Your task to perform on an android device: Show the shopping cart on amazon. Add razer blade to the cart on amazon Image 0: 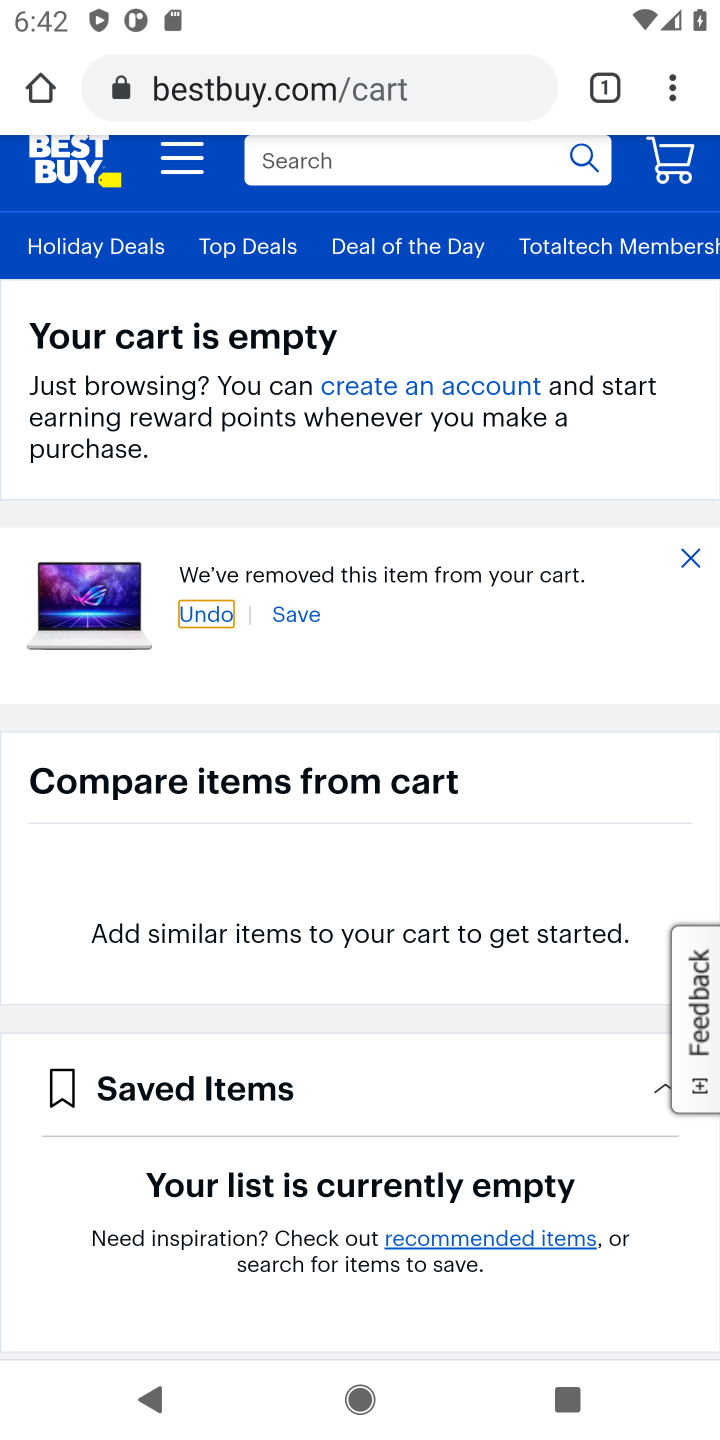
Step 0: click (363, 98)
Your task to perform on an android device: Show the shopping cart on amazon. Add razer blade to the cart on amazon Image 1: 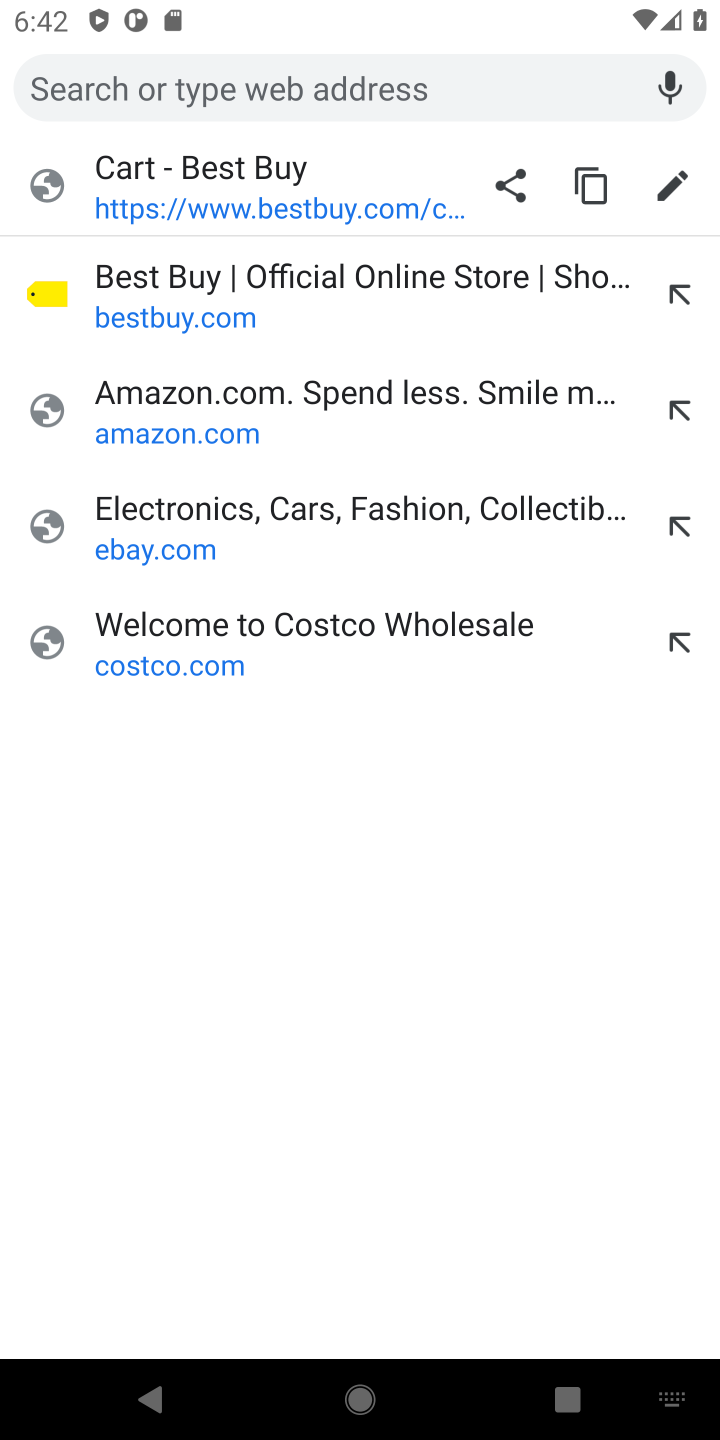
Step 1: click (163, 411)
Your task to perform on an android device: Show the shopping cart on amazon. Add razer blade to the cart on amazon Image 2: 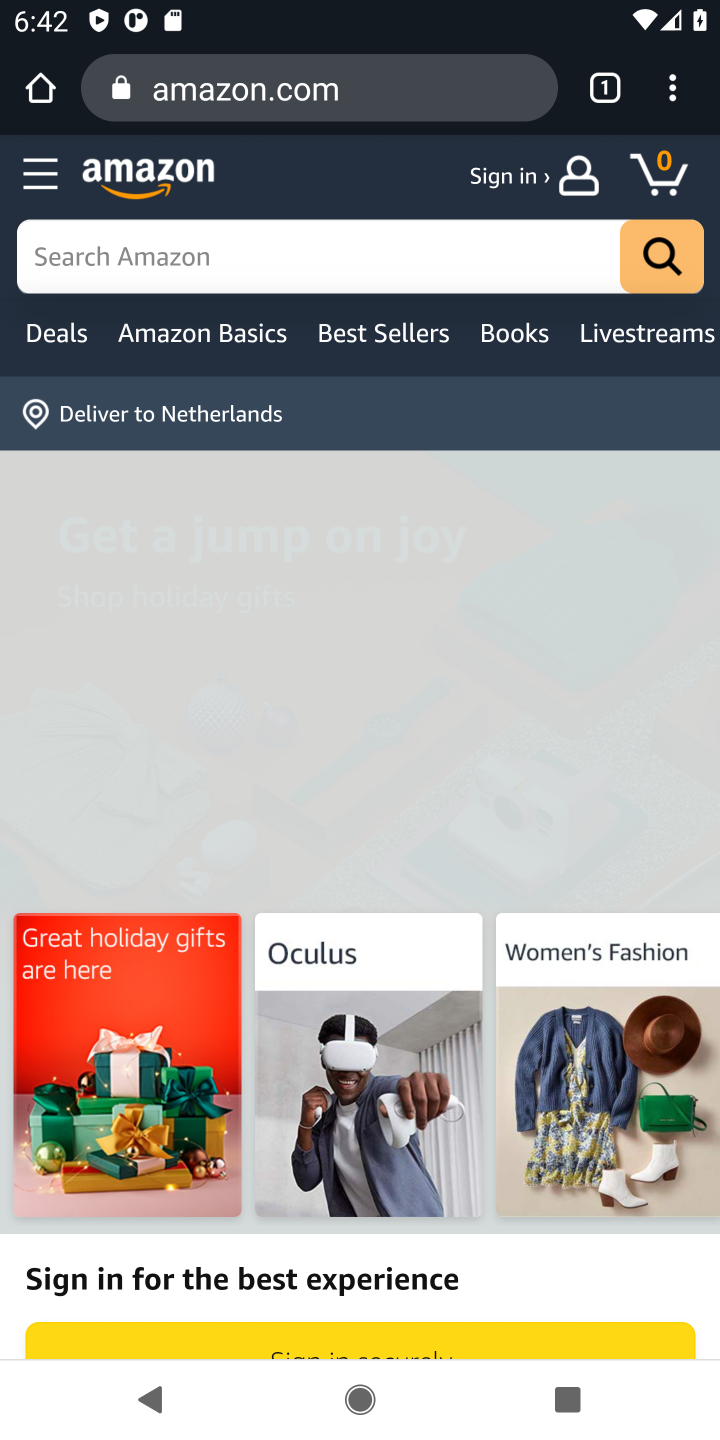
Step 2: click (662, 182)
Your task to perform on an android device: Show the shopping cart on amazon. Add razer blade to the cart on amazon Image 3: 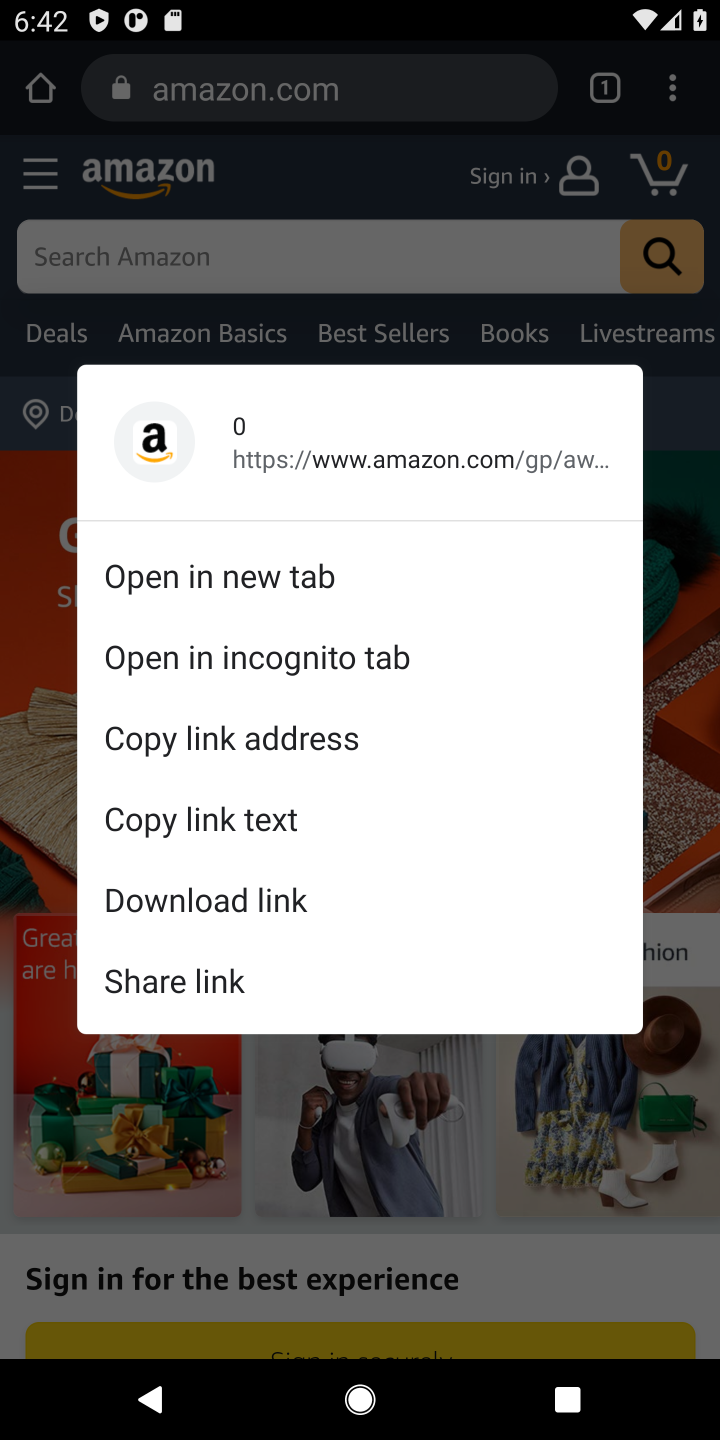
Step 3: click (660, 167)
Your task to perform on an android device: Show the shopping cart on amazon. Add razer blade to the cart on amazon Image 4: 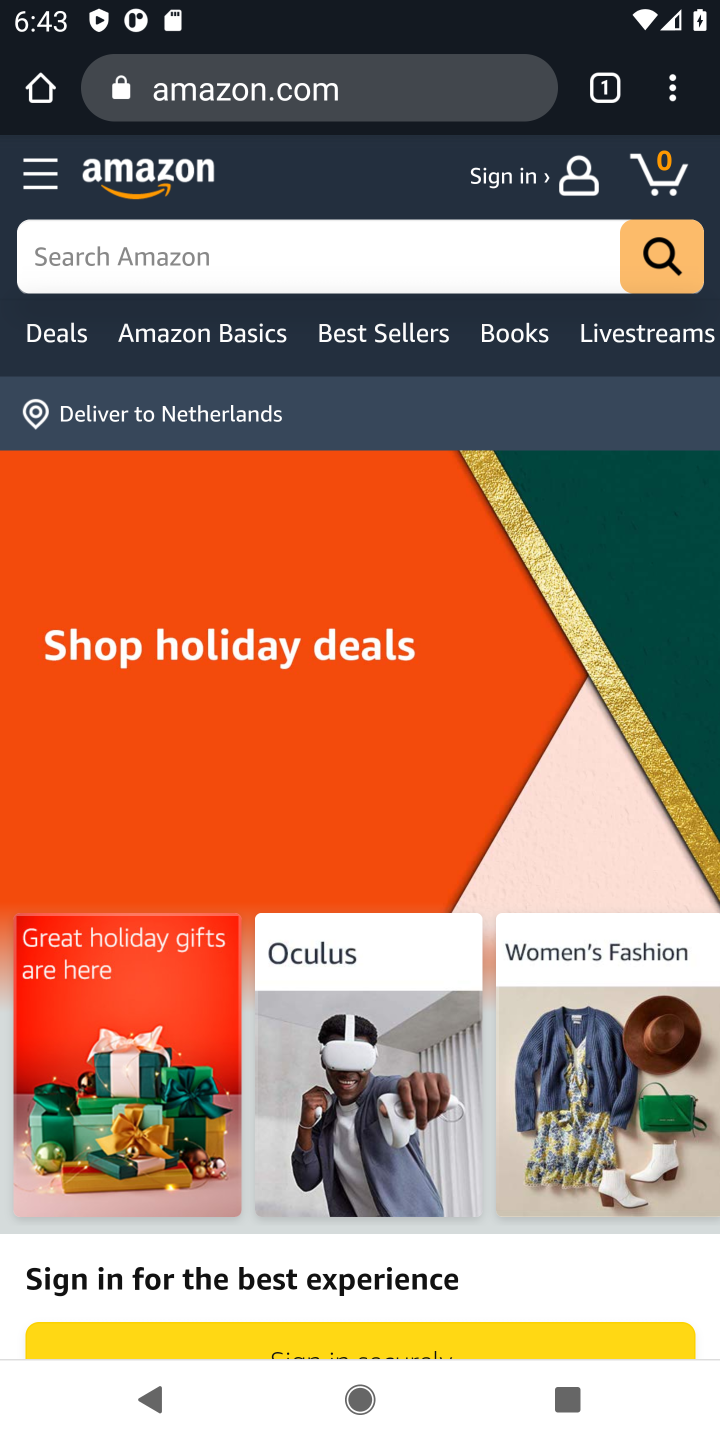
Step 4: click (649, 186)
Your task to perform on an android device: Show the shopping cart on amazon. Add razer blade to the cart on amazon Image 5: 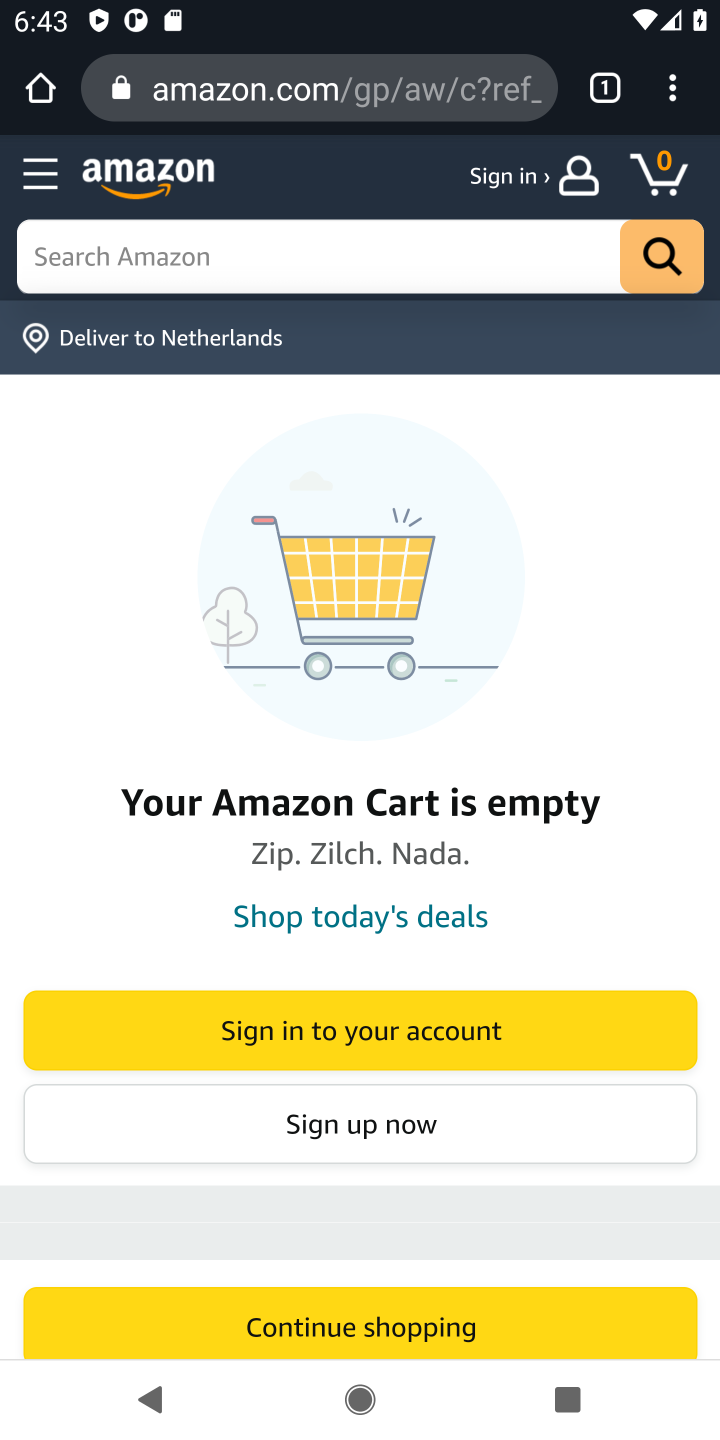
Step 5: click (123, 256)
Your task to perform on an android device: Show the shopping cart on amazon. Add razer blade to the cart on amazon Image 6: 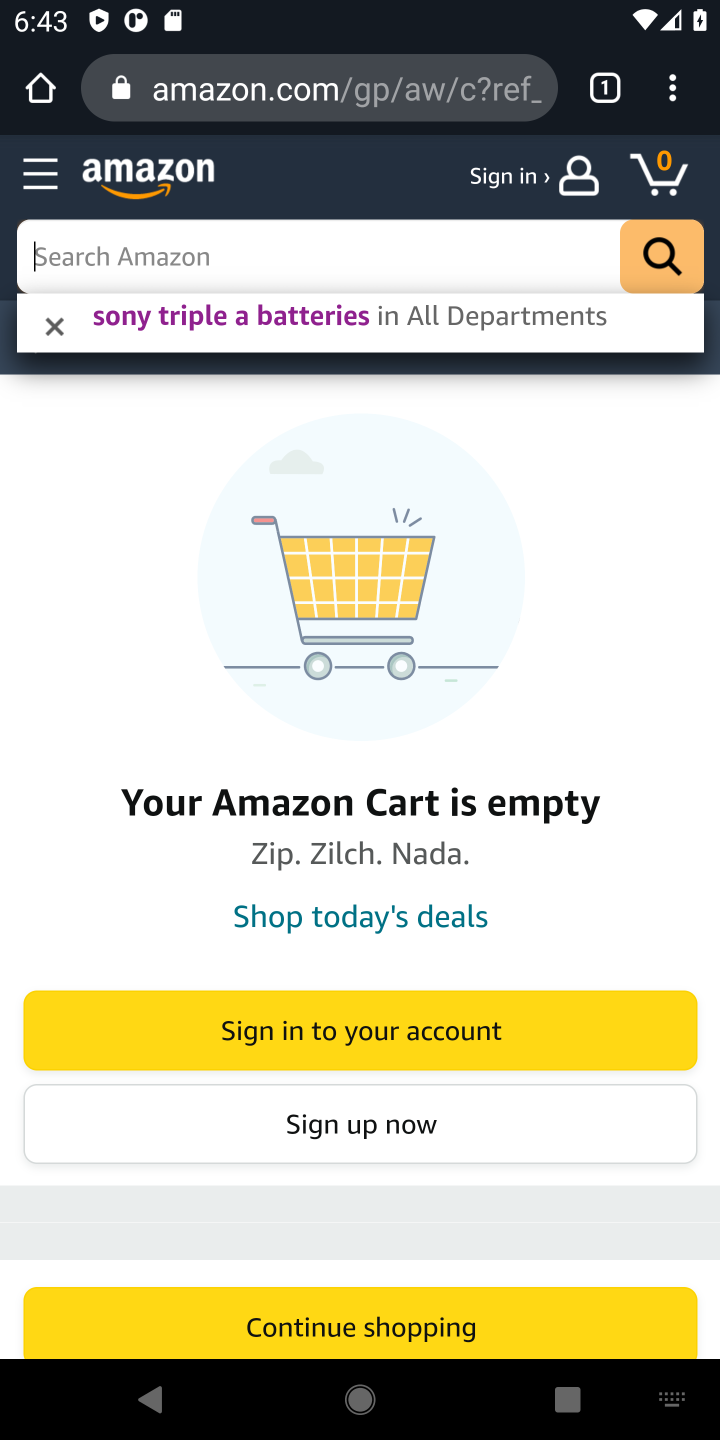
Step 6: type "razer blade"
Your task to perform on an android device: Show the shopping cart on amazon. Add razer blade to the cart on amazon Image 7: 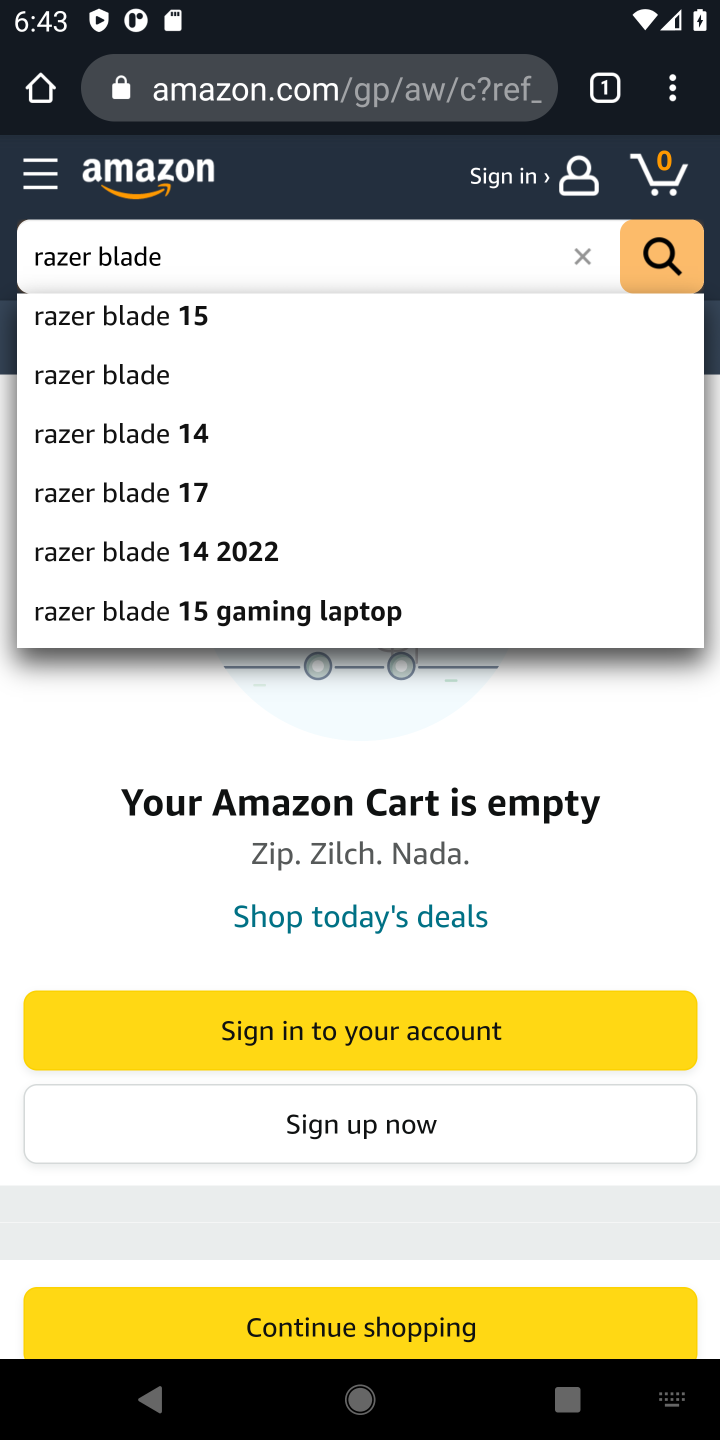
Step 7: click (101, 383)
Your task to perform on an android device: Show the shopping cart on amazon. Add razer blade to the cart on amazon Image 8: 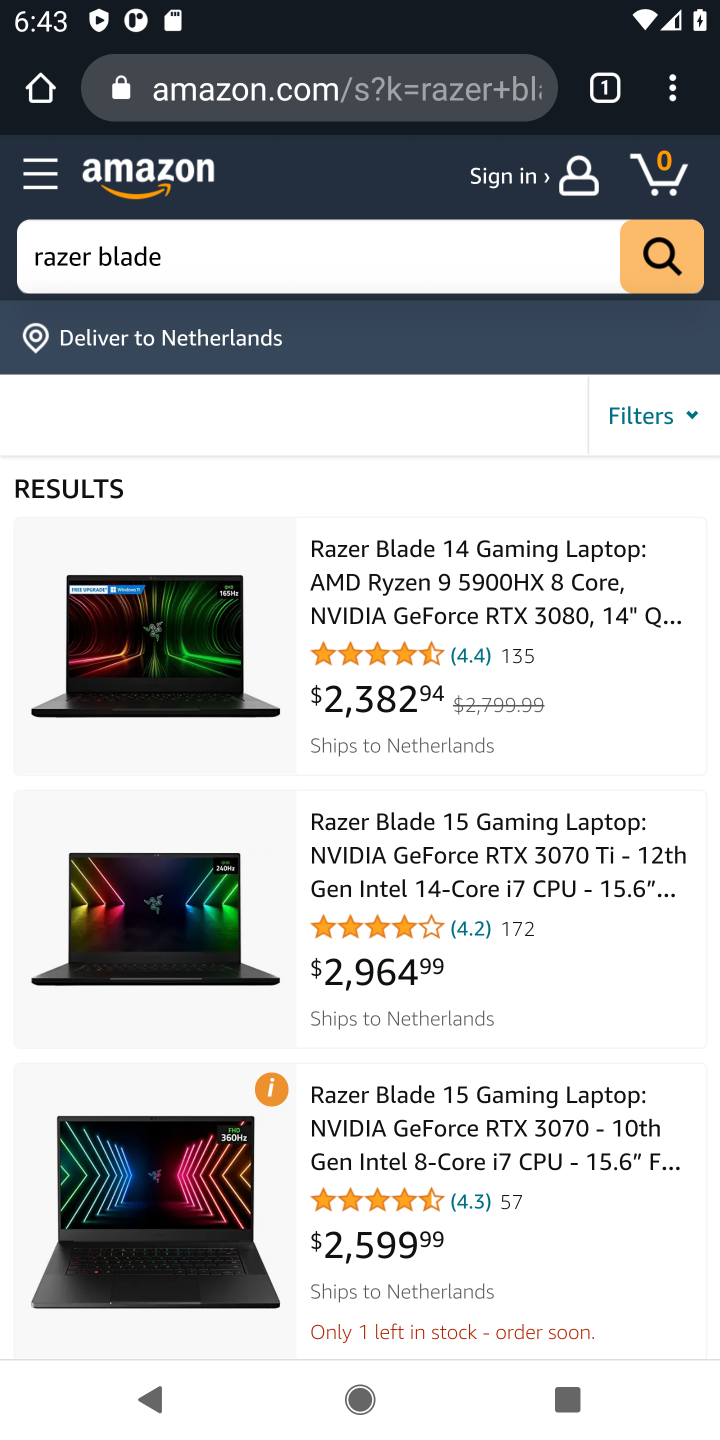
Step 8: click (400, 594)
Your task to perform on an android device: Show the shopping cart on amazon. Add razer blade to the cart on amazon Image 9: 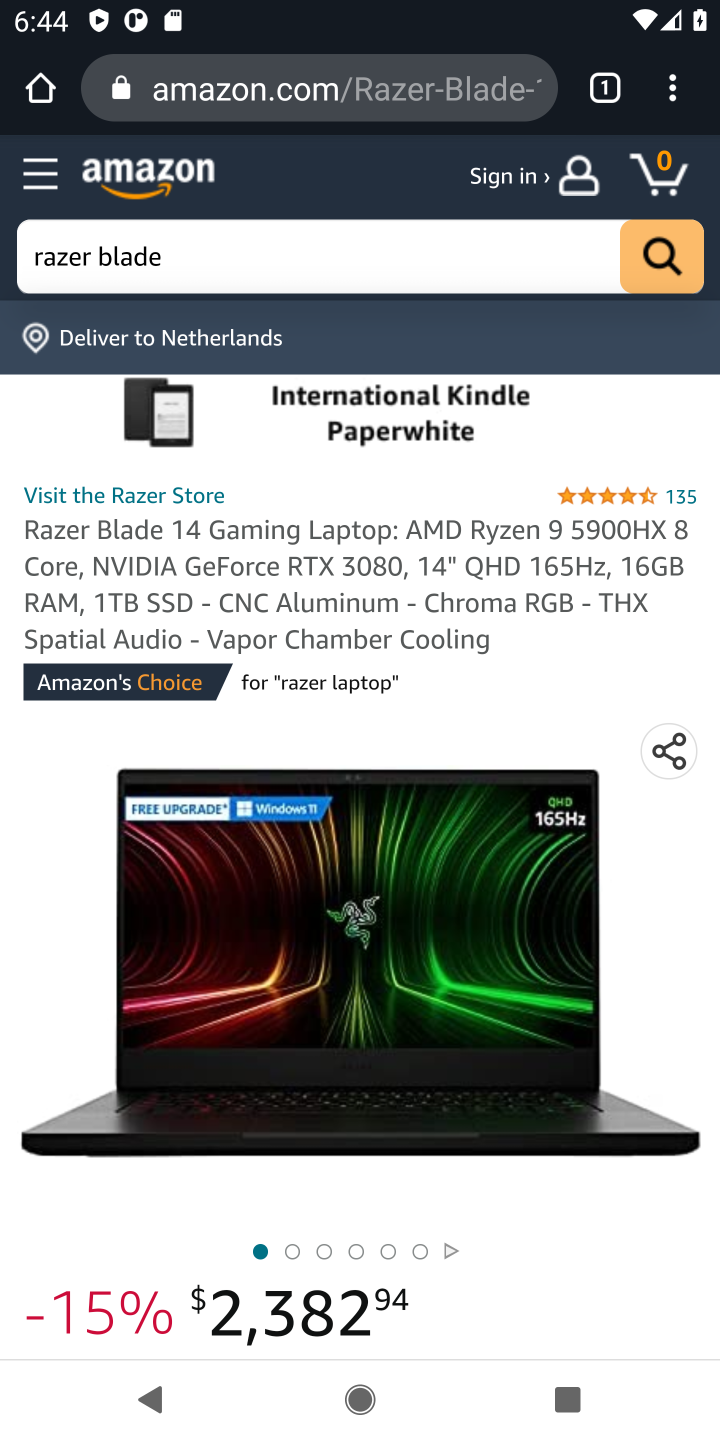
Step 9: drag from (347, 999) to (328, 483)
Your task to perform on an android device: Show the shopping cart on amazon. Add razer blade to the cart on amazon Image 10: 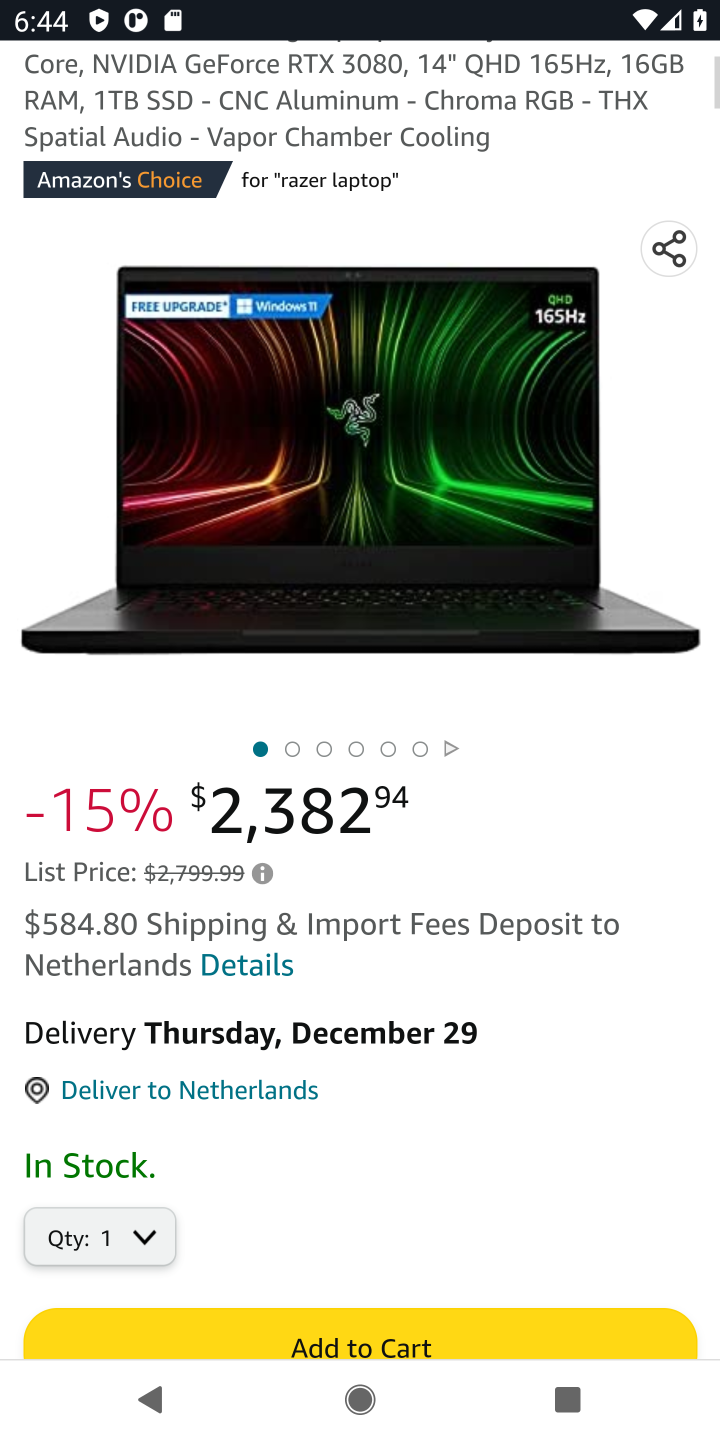
Step 10: drag from (338, 980) to (302, 511)
Your task to perform on an android device: Show the shopping cart on amazon. Add razer blade to the cart on amazon Image 11: 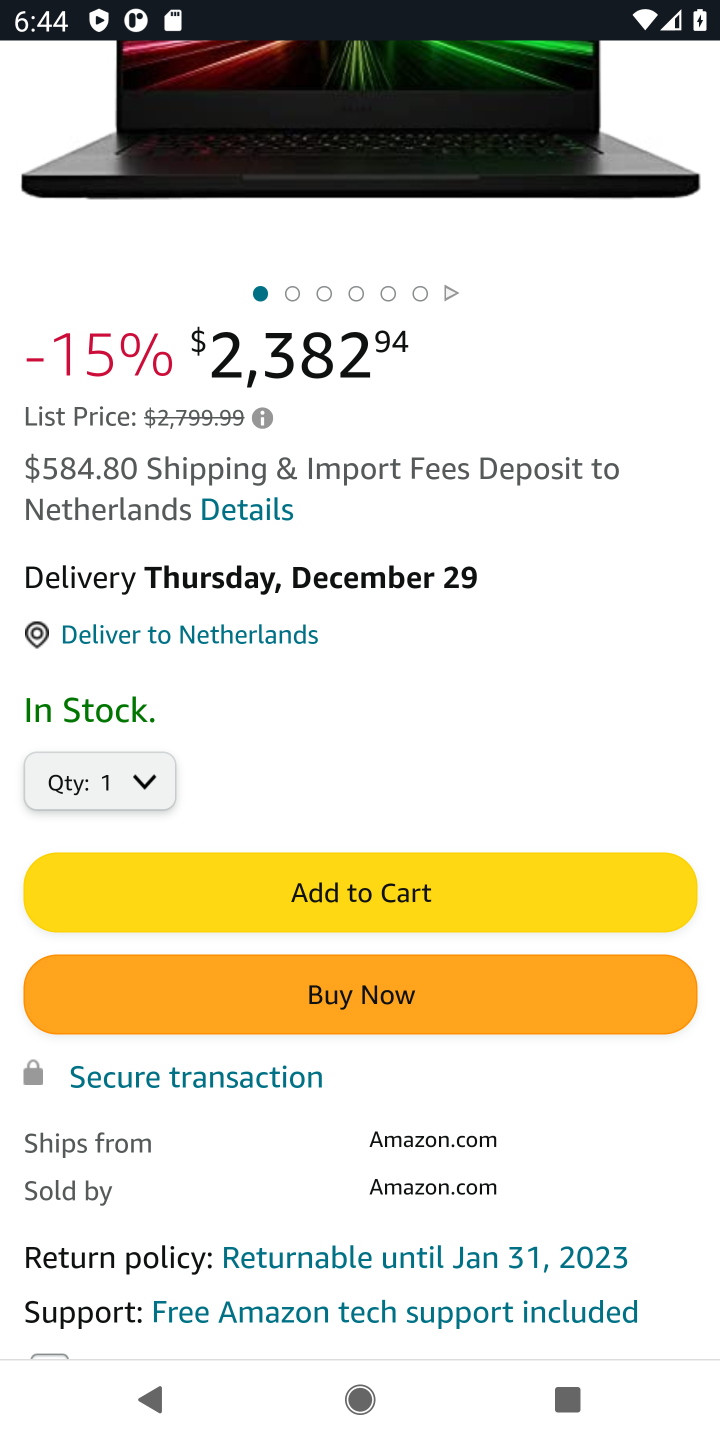
Step 11: click (354, 888)
Your task to perform on an android device: Show the shopping cart on amazon. Add razer blade to the cart on amazon Image 12: 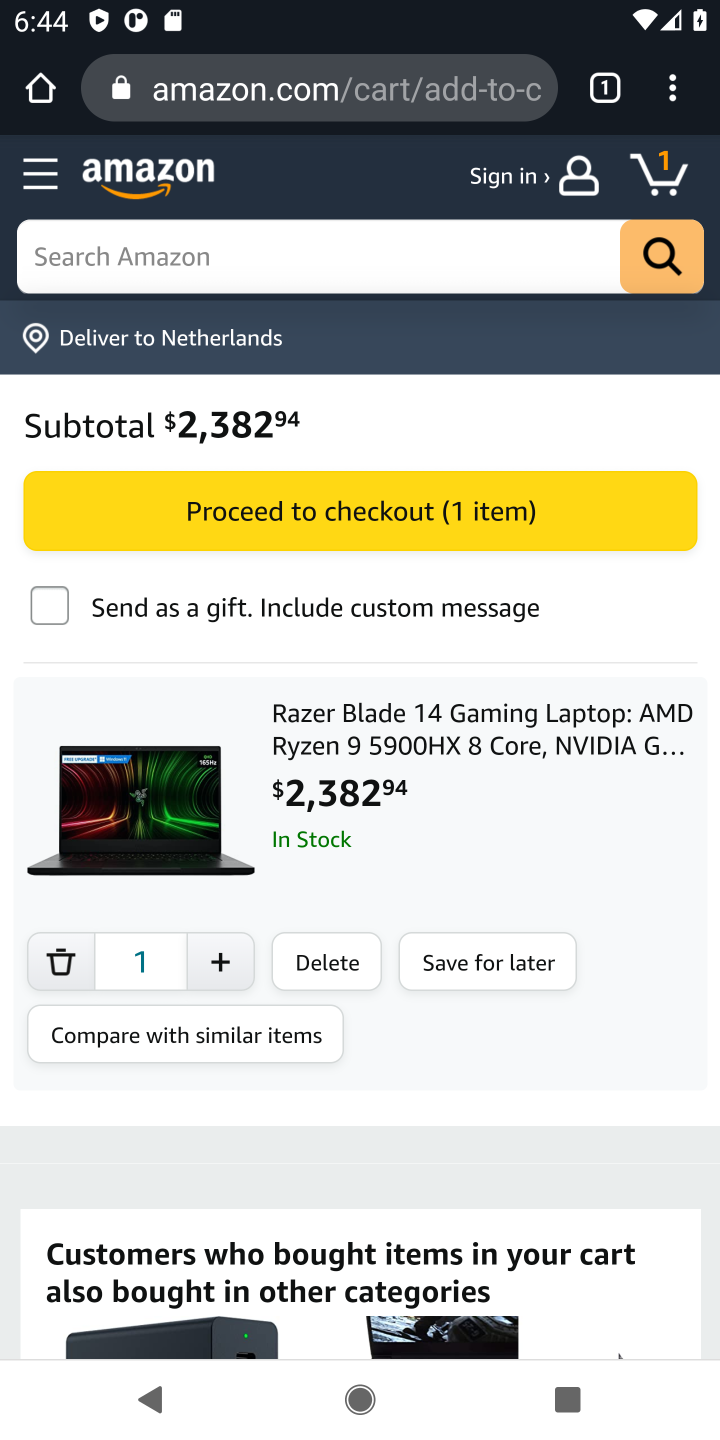
Step 12: task complete